Your task to perform on an android device: Open the web browser Image 0: 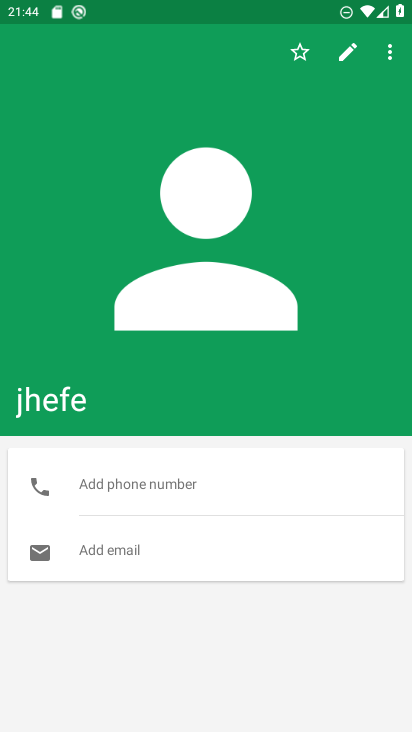
Step 0: press home button
Your task to perform on an android device: Open the web browser Image 1: 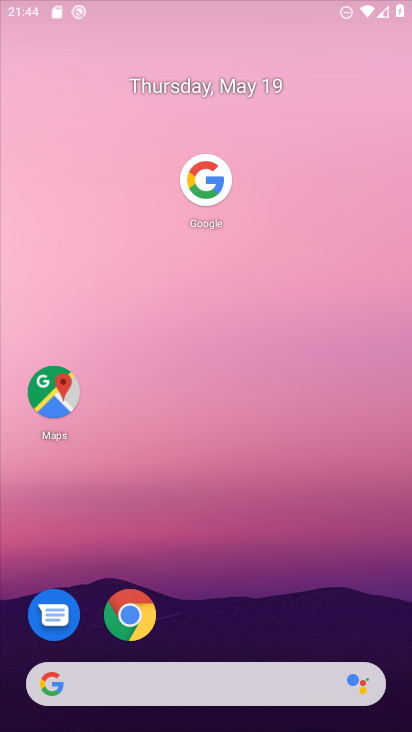
Step 1: drag from (238, 601) to (276, 44)
Your task to perform on an android device: Open the web browser Image 2: 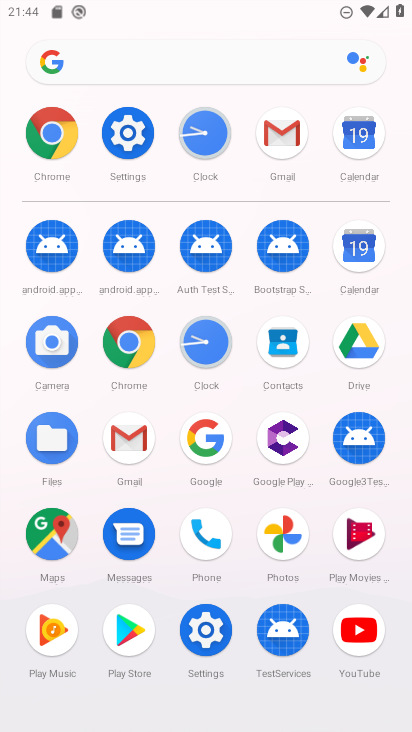
Step 2: click (209, 432)
Your task to perform on an android device: Open the web browser Image 3: 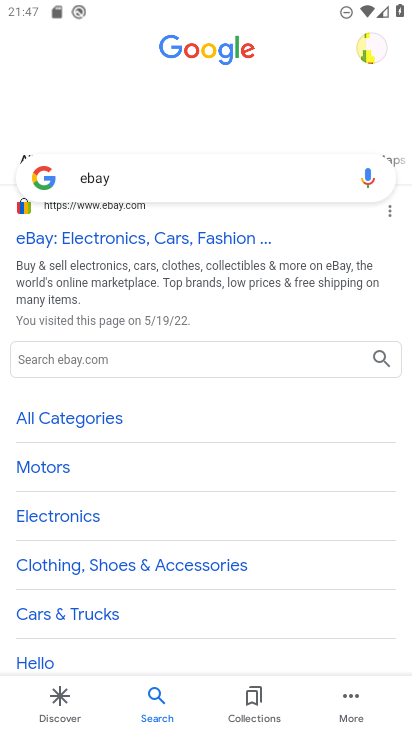
Step 3: task complete